Your task to perform on an android device: change timer sound Image 0: 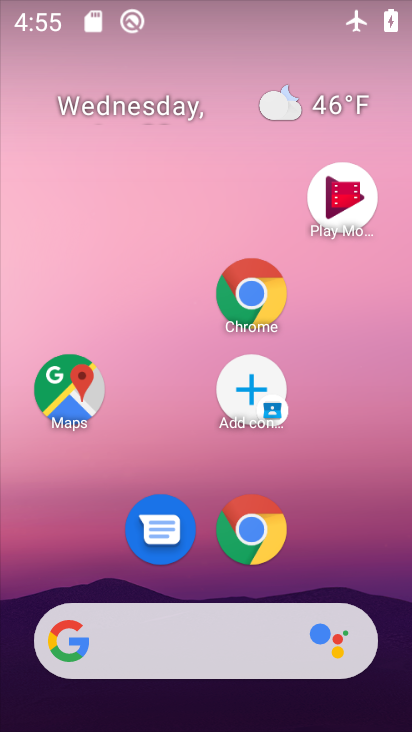
Step 0: drag from (317, 394) to (317, 151)
Your task to perform on an android device: change timer sound Image 1: 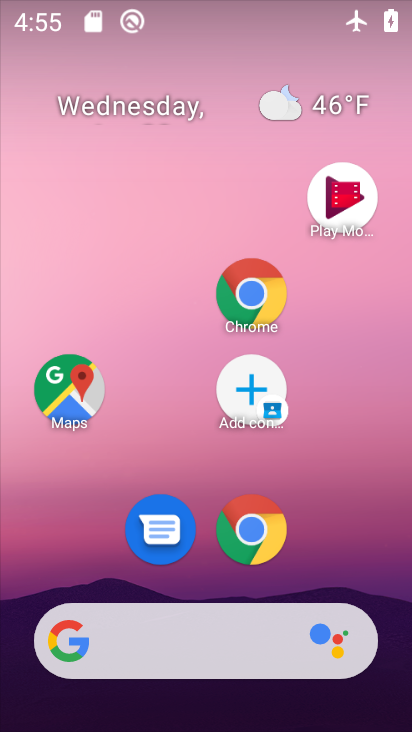
Step 1: drag from (314, 447) to (302, 81)
Your task to perform on an android device: change timer sound Image 2: 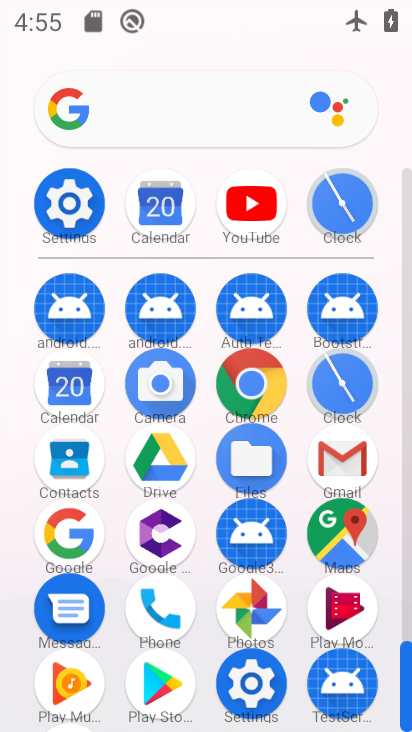
Step 2: click (325, 392)
Your task to perform on an android device: change timer sound Image 3: 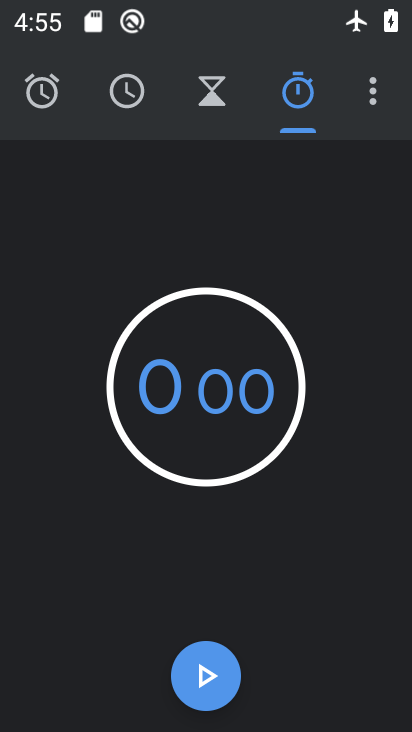
Step 3: click (369, 103)
Your task to perform on an android device: change timer sound Image 4: 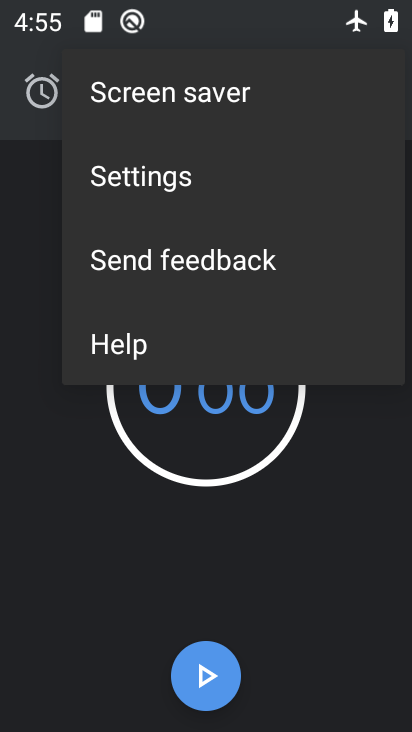
Step 4: click (184, 169)
Your task to perform on an android device: change timer sound Image 5: 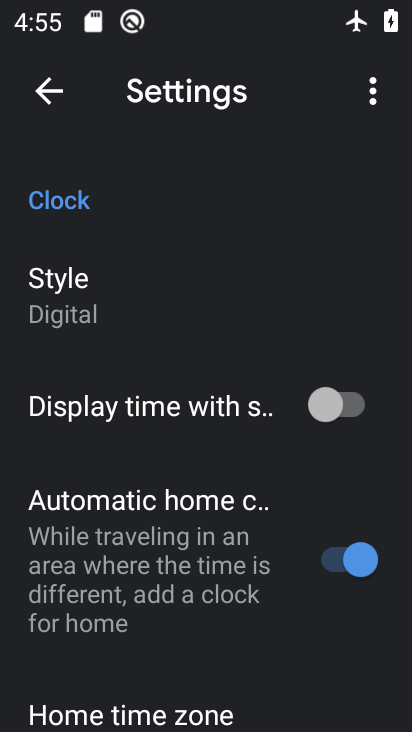
Step 5: drag from (268, 634) to (281, 206)
Your task to perform on an android device: change timer sound Image 6: 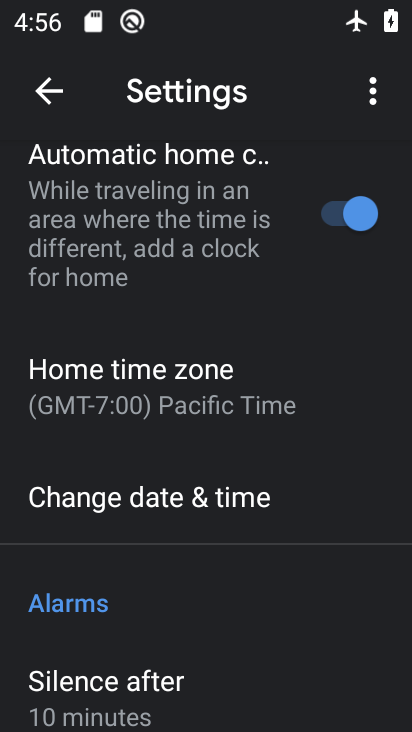
Step 6: drag from (209, 678) to (226, 195)
Your task to perform on an android device: change timer sound Image 7: 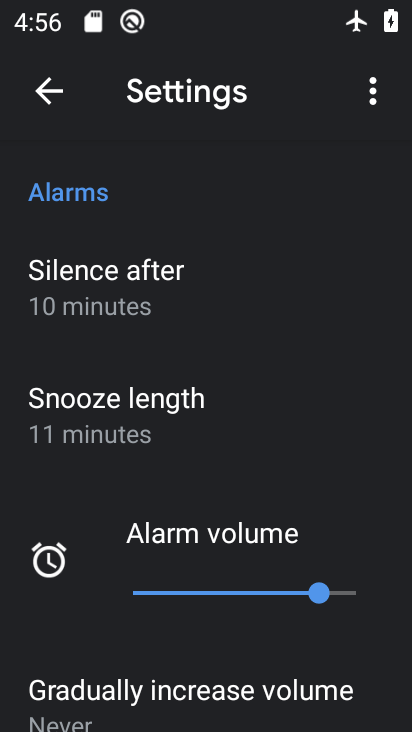
Step 7: drag from (163, 714) to (191, 263)
Your task to perform on an android device: change timer sound Image 8: 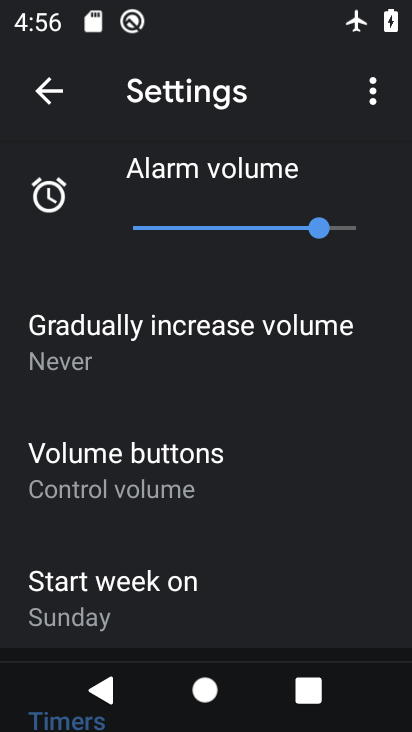
Step 8: drag from (135, 588) to (200, 197)
Your task to perform on an android device: change timer sound Image 9: 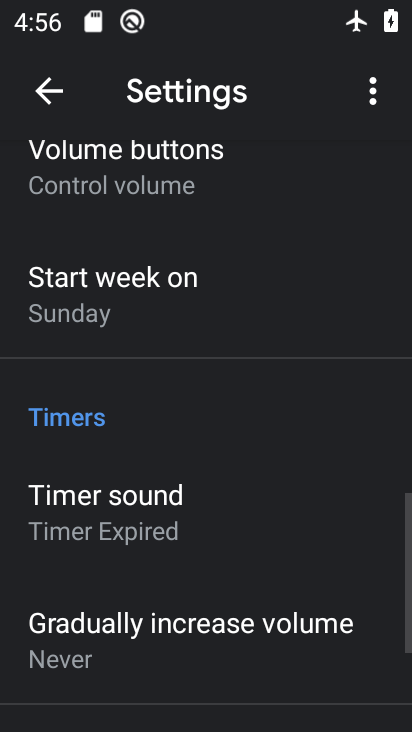
Step 9: click (155, 515)
Your task to perform on an android device: change timer sound Image 10: 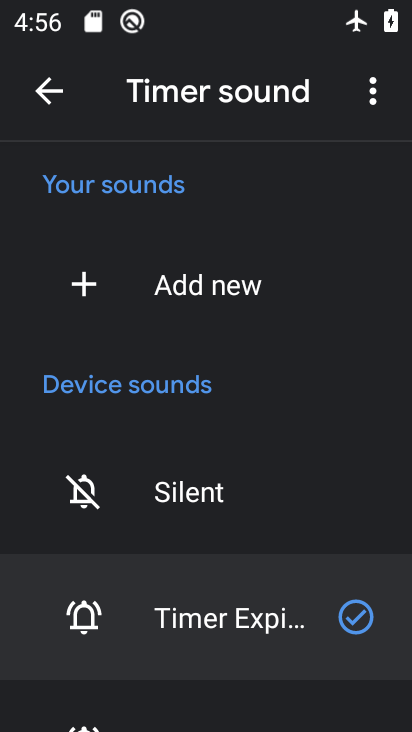
Step 10: drag from (195, 547) to (246, 220)
Your task to perform on an android device: change timer sound Image 11: 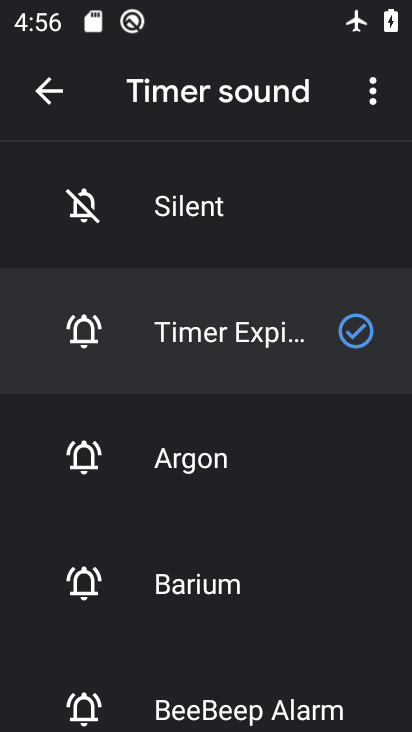
Step 11: click (201, 478)
Your task to perform on an android device: change timer sound Image 12: 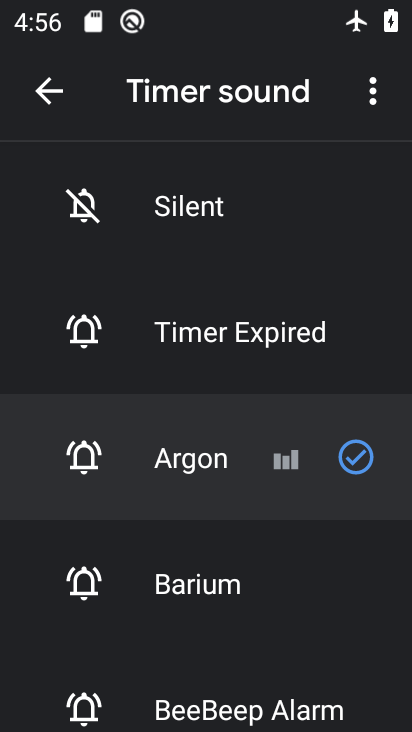
Step 12: task complete